Your task to perform on an android device: Open sound settings Image 0: 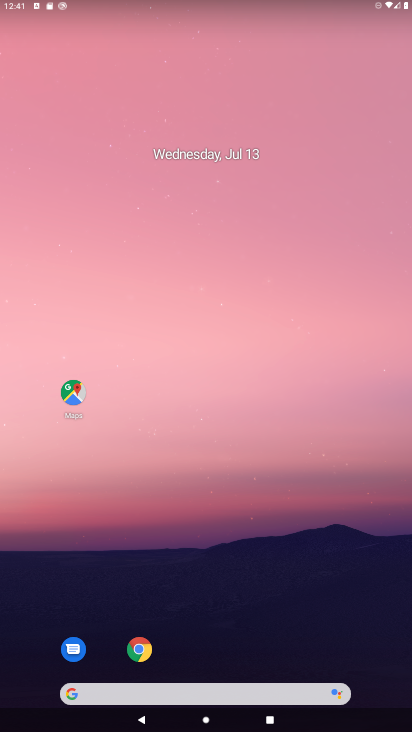
Step 0: drag from (378, 662) to (293, 155)
Your task to perform on an android device: Open sound settings Image 1: 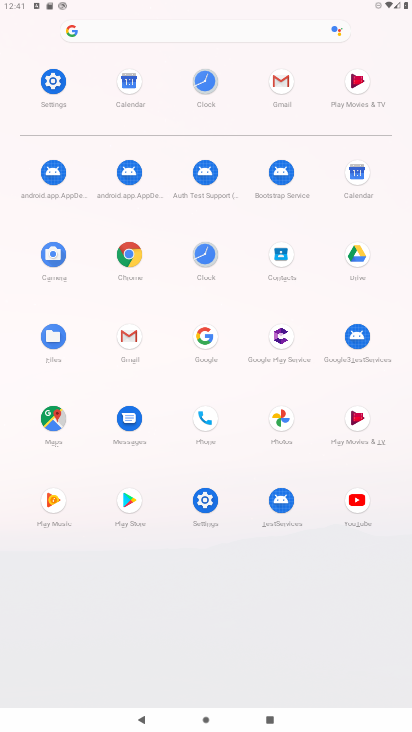
Step 1: click (203, 498)
Your task to perform on an android device: Open sound settings Image 2: 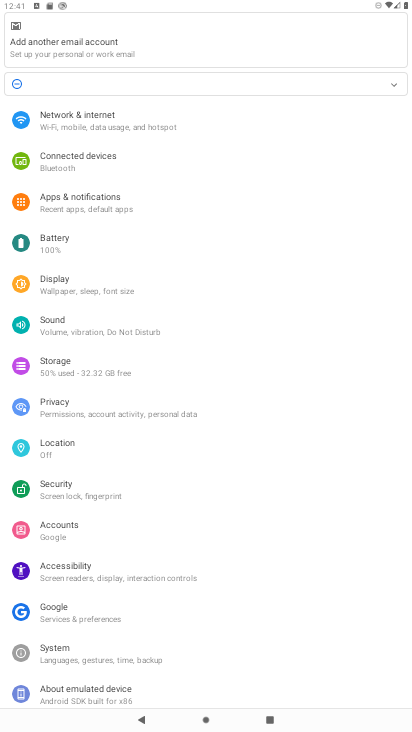
Step 2: click (53, 325)
Your task to perform on an android device: Open sound settings Image 3: 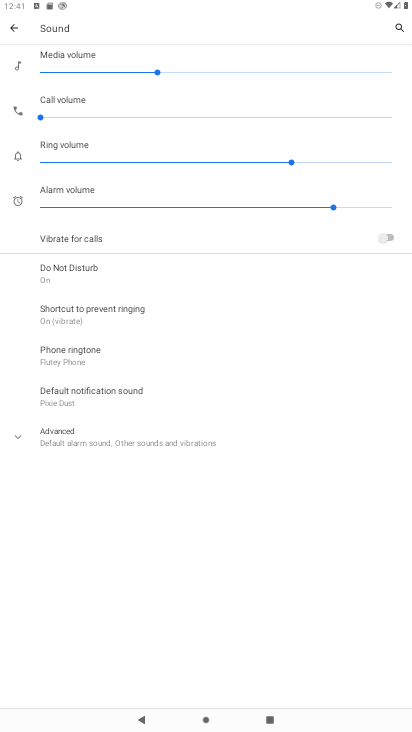
Step 3: click (17, 439)
Your task to perform on an android device: Open sound settings Image 4: 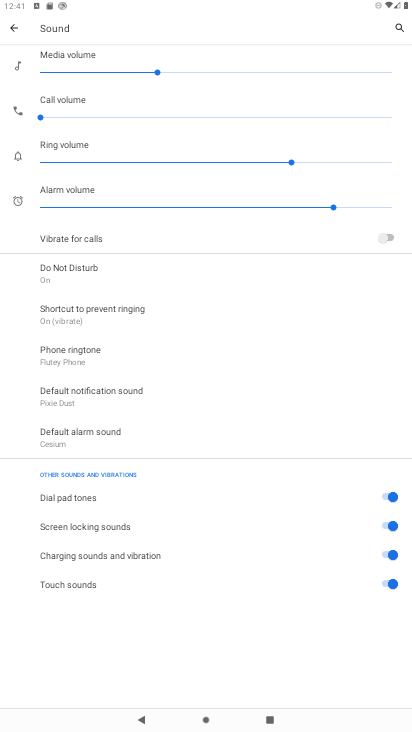
Step 4: task complete